Your task to perform on an android device: see tabs open on other devices in the chrome app Image 0: 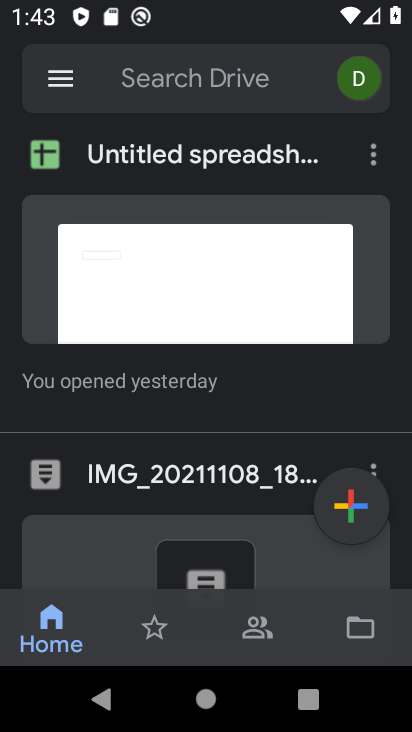
Step 0: press home button
Your task to perform on an android device: see tabs open on other devices in the chrome app Image 1: 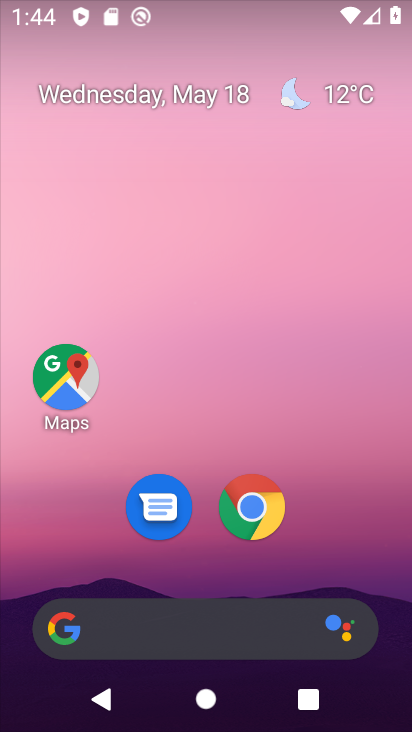
Step 1: drag from (388, 538) to (299, 218)
Your task to perform on an android device: see tabs open on other devices in the chrome app Image 2: 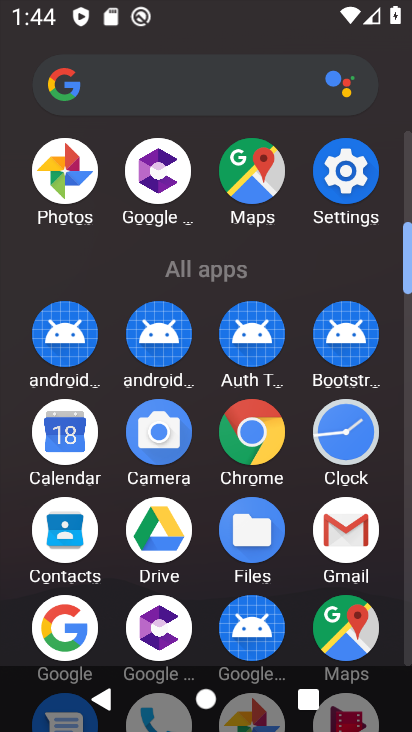
Step 2: click (260, 435)
Your task to perform on an android device: see tabs open on other devices in the chrome app Image 3: 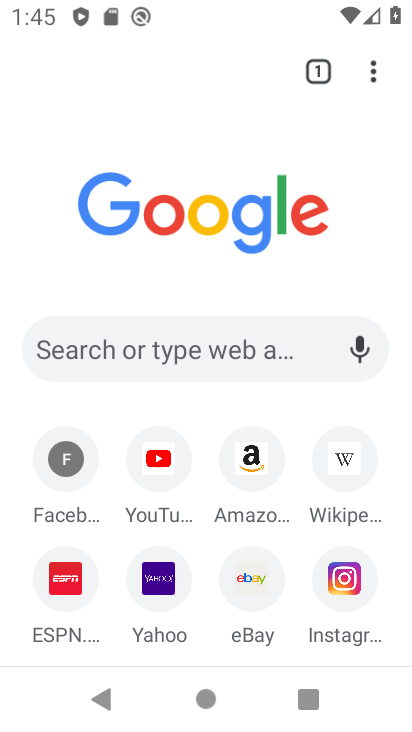
Step 3: click (372, 71)
Your task to perform on an android device: see tabs open on other devices in the chrome app Image 4: 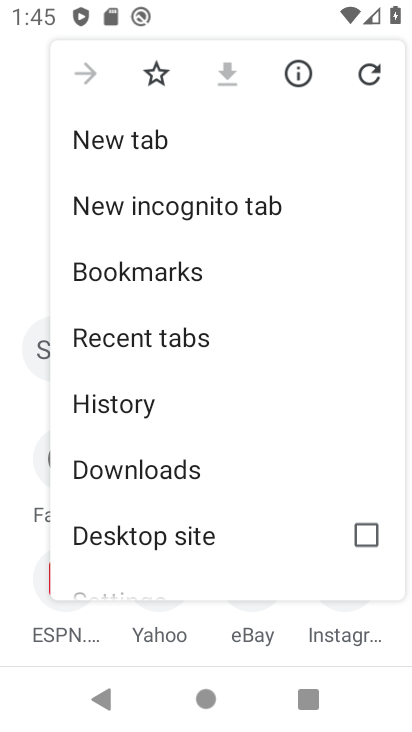
Step 4: drag from (281, 540) to (235, 275)
Your task to perform on an android device: see tabs open on other devices in the chrome app Image 5: 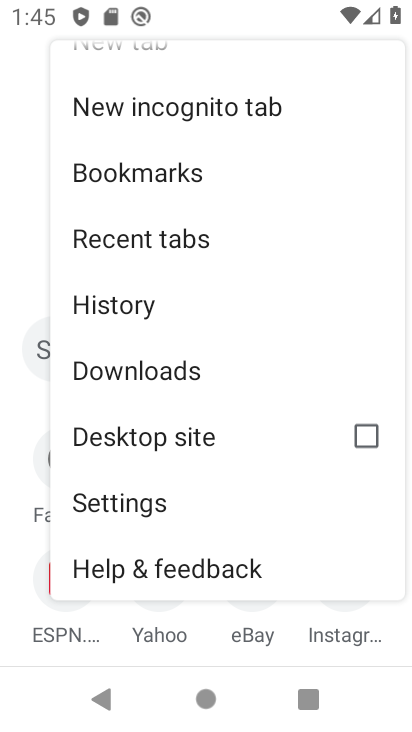
Step 5: click (121, 237)
Your task to perform on an android device: see tabs open on other devices in the chrome app Image 6: 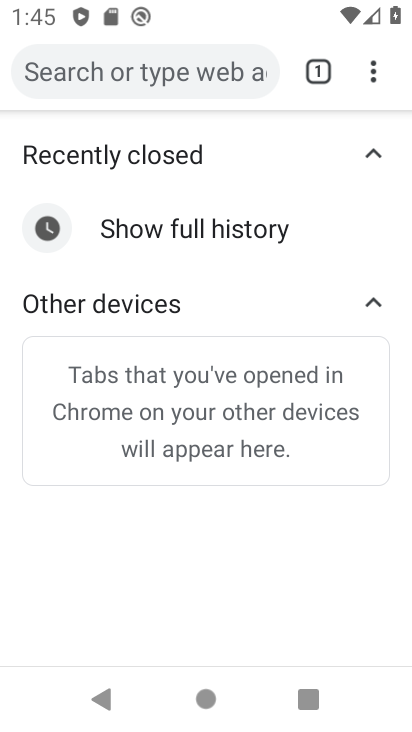
Step 6: task complete